Your task to perform on an android device: What's on my calendar today? Image 0: 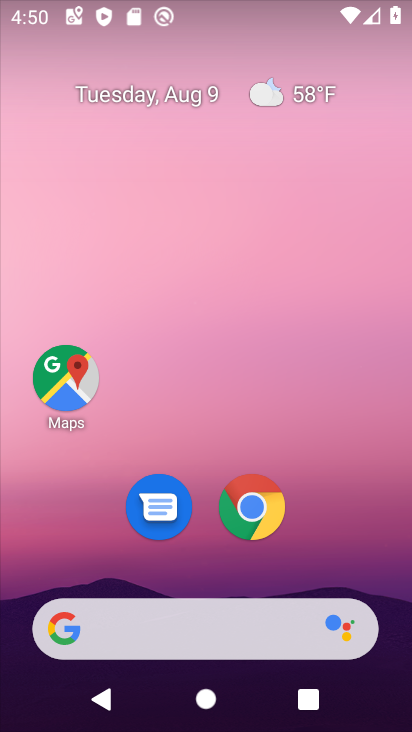
Step 0: drag from (356, 523) to (324, 83)
Your task to perform on an android device: What's on my calendar today? Image 1: 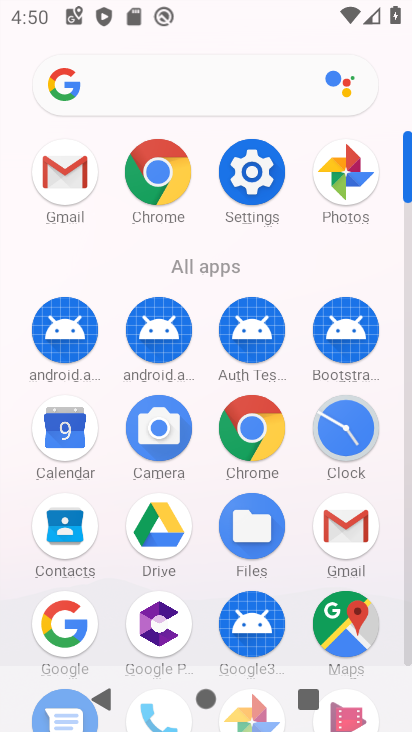
Step 1: click (59, 444)
Your task to perform on an android device: What's on my calendar today? Image 2: 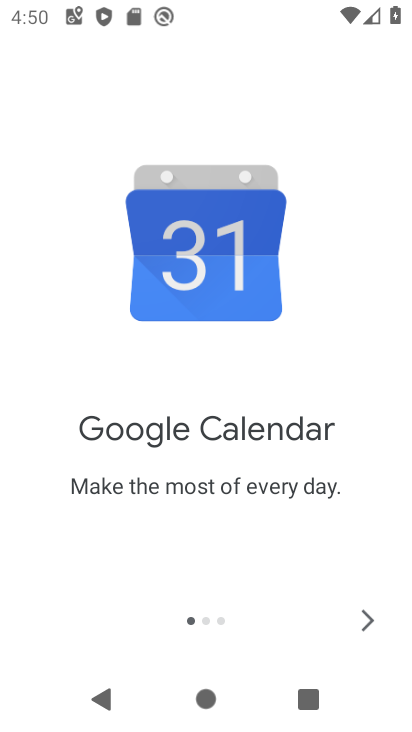
Step 2: click (374, 629)
Your task to perform on an android device: What's on my calendar today? Image 3: 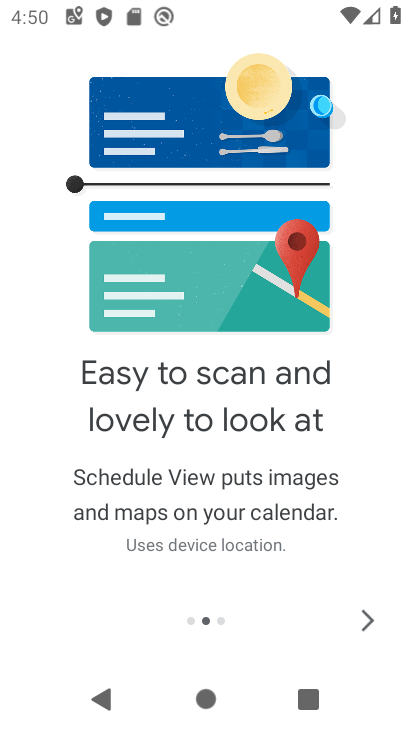
Step 3: click (380, 629)
Your task to perform on an android device: What's on my calendar today? Image 4: 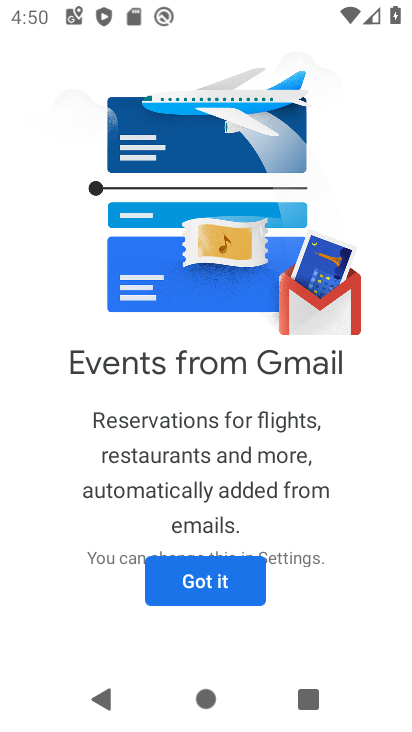
Step 4: click (195, 590)
Your task to perform on an android device: What's on my calendar today? Image 5: 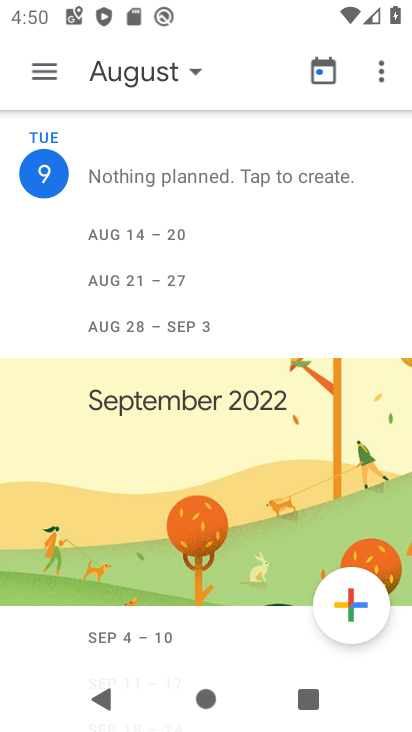
Step 5: click (168, 75)
Your task to perform on an android device: What's on my calendar today? Image 6: 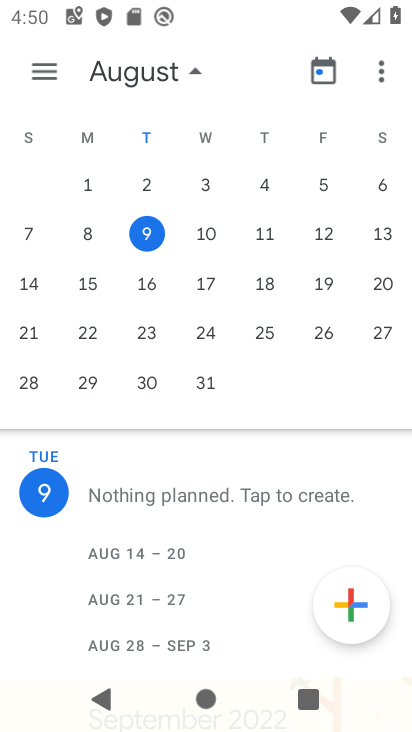
Step 6: click (154, 233)
Your task to perform on an android device: What's on my calendar today? Image 7: 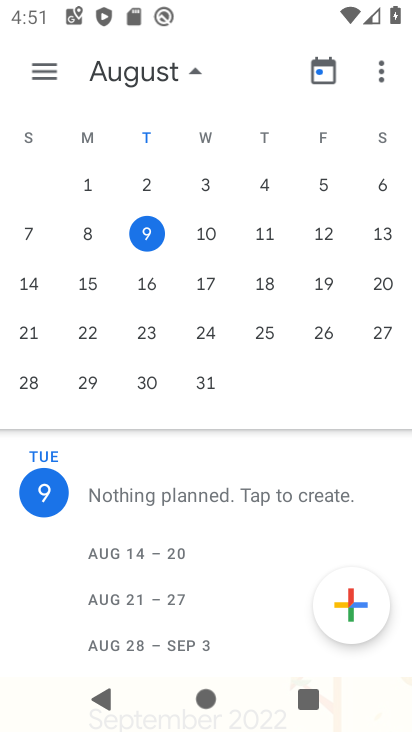
Step 7: task complete